Your task to perform on an android device: Is it going to rain today? Image 0: 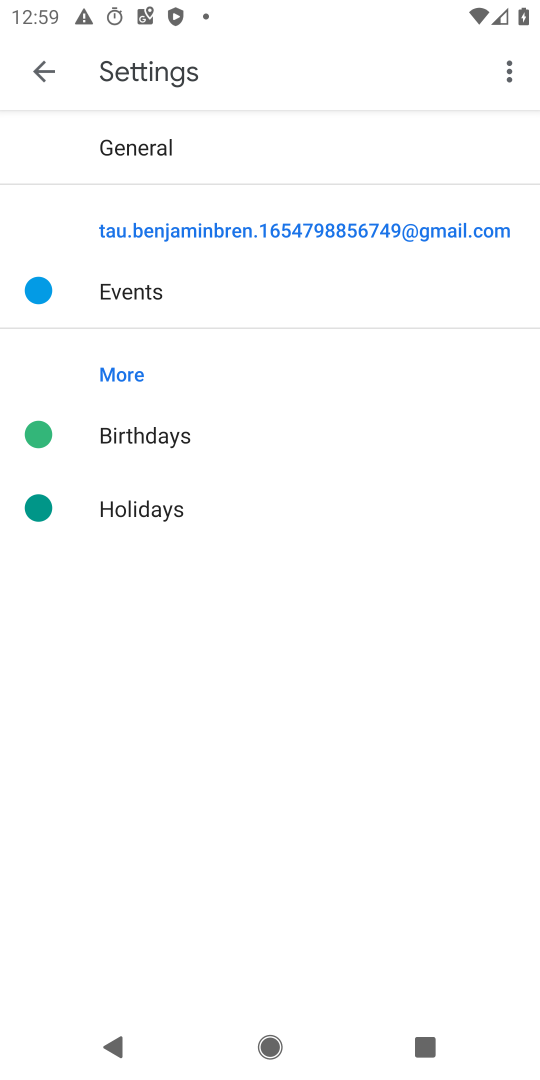
Step 0: press home button
Your task to perform on an android device: Is it going to rain today? Image 1: 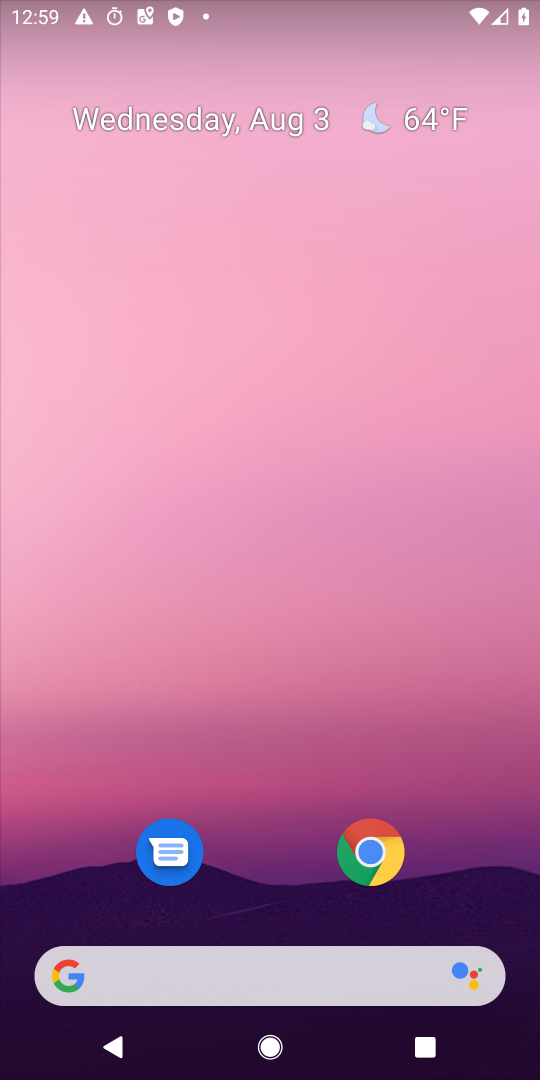
Step 1: drag from (476, 898) to (274, 87)
Your task to perform on an android device: Is it going to rain today? Image 2: 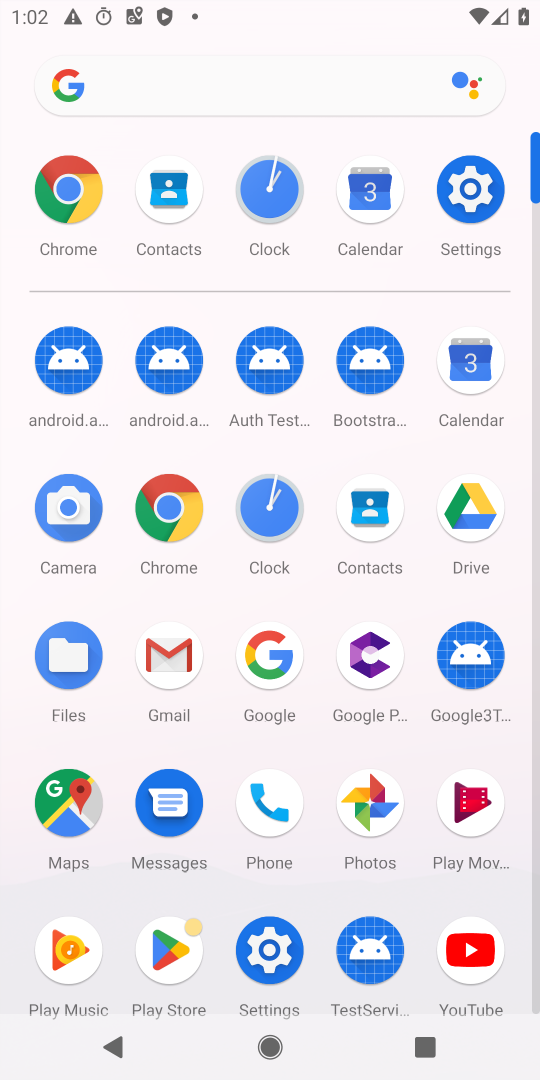
Step 2: click (267, 646)
Your task to perform on an android device: Is it going to rain today? Image 3: 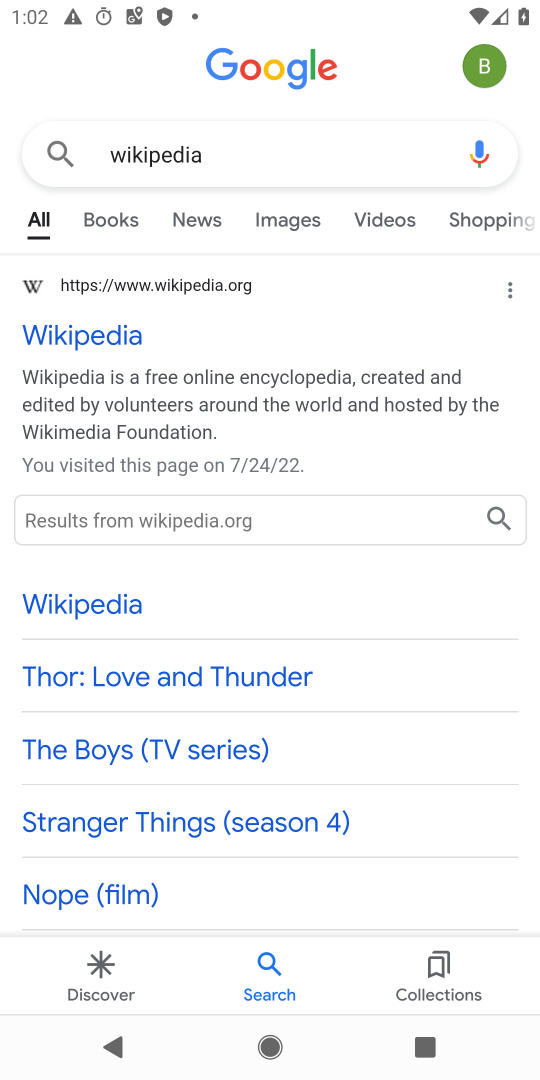
Step 3: press back button
Your task to perform on an android device: Is it going to rain today? Image 4: 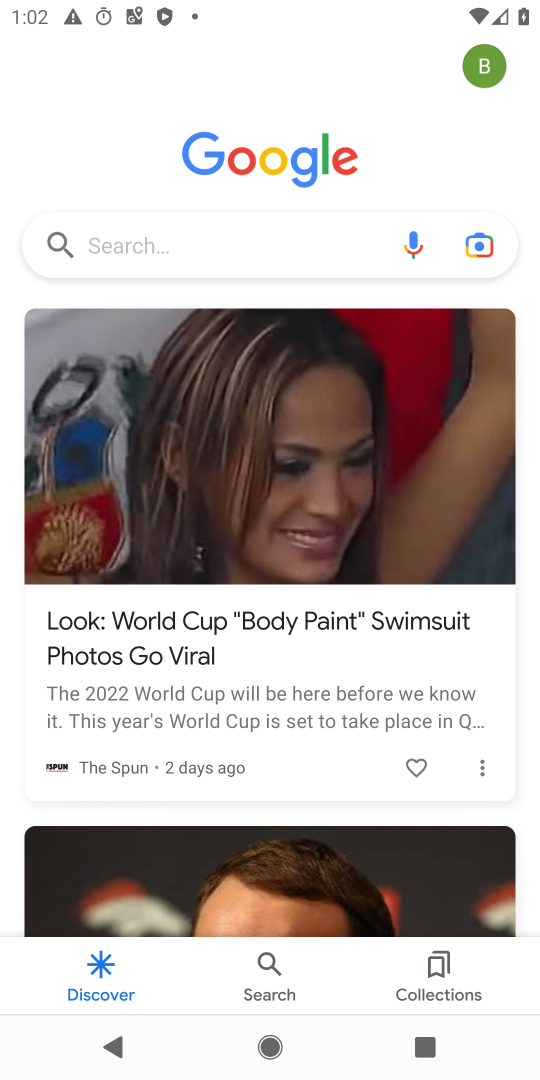
Step 4: click (203, 244)
Your task to perform on an android device: Is it going to rain today? Image 5: 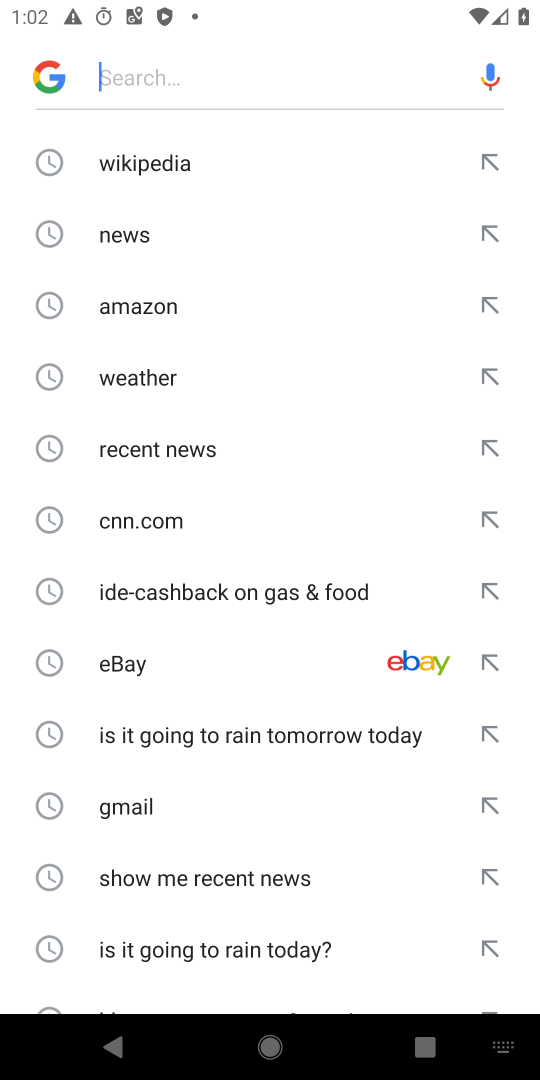
Step 5: type "Is it going to rain today?"
Your task to perform on an android device: Is it going to rain today? Image 6: 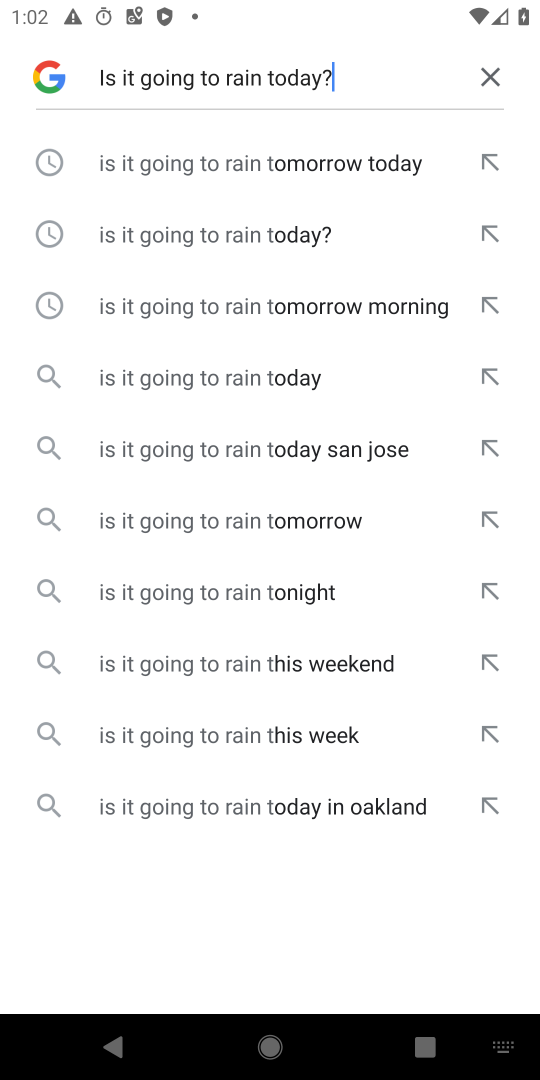
Step 6: click (164, 96)
Your task to perform on an android device: Is it going to rain today? Image 7: 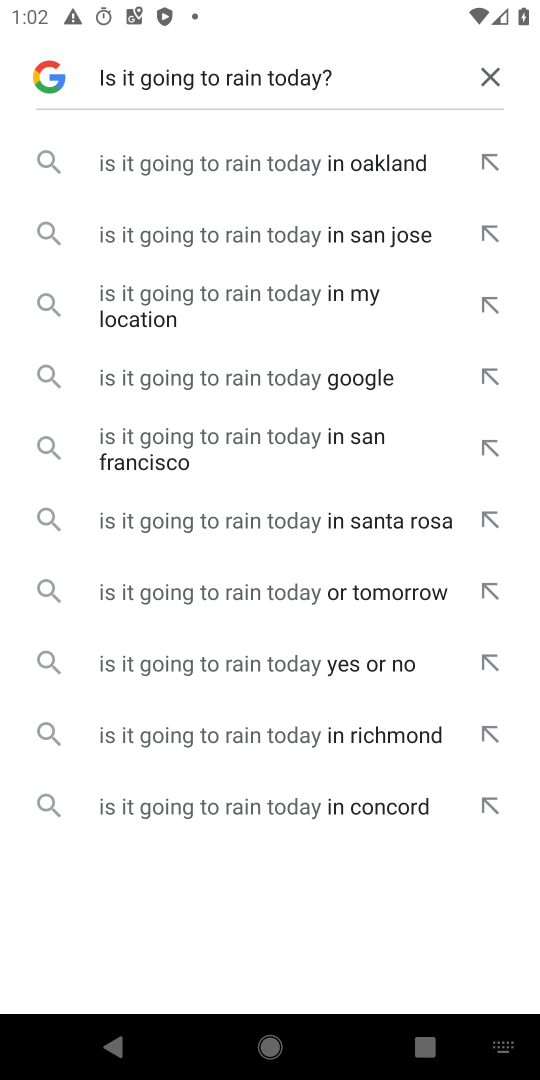
Step 7: task complete